Your task to perform on an android device: Go to display settings Image 0: 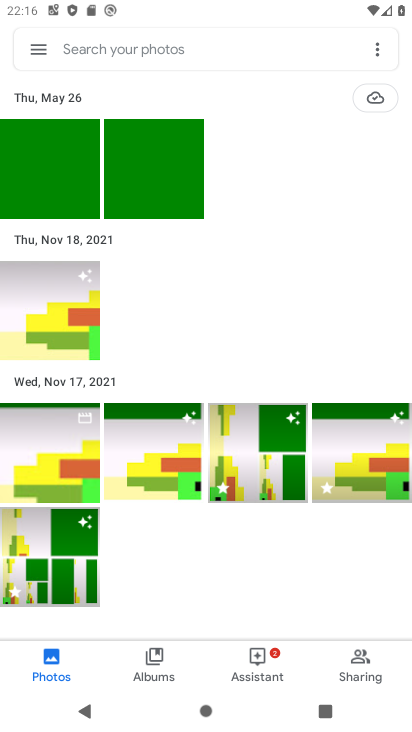
Step 0: press home button
Your task to perform on an android device: Go to display settings Image 1: 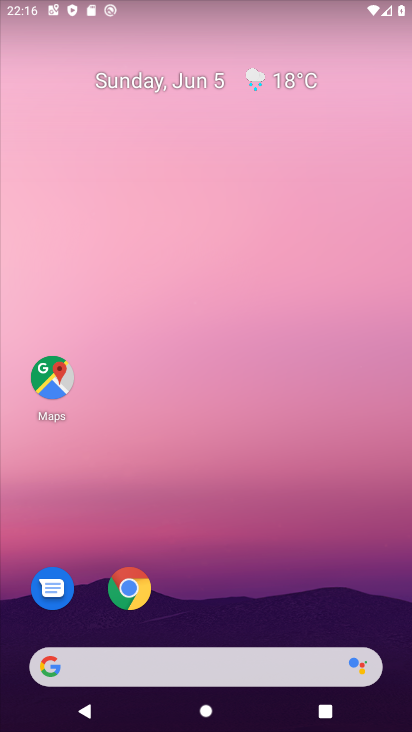
Step 1: drag from (353, 609) to (344, 99)
Your task to perform on an android device: Go to display settings Image 2: 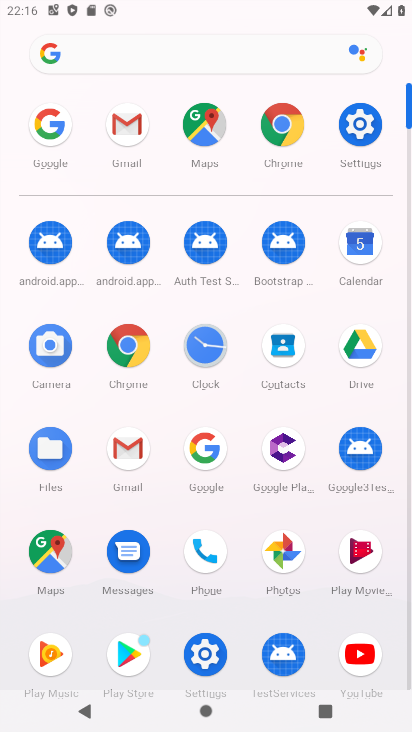
Step 2: click (364, 130)
Your task to perform on an android device: Go to display settings Image 3: 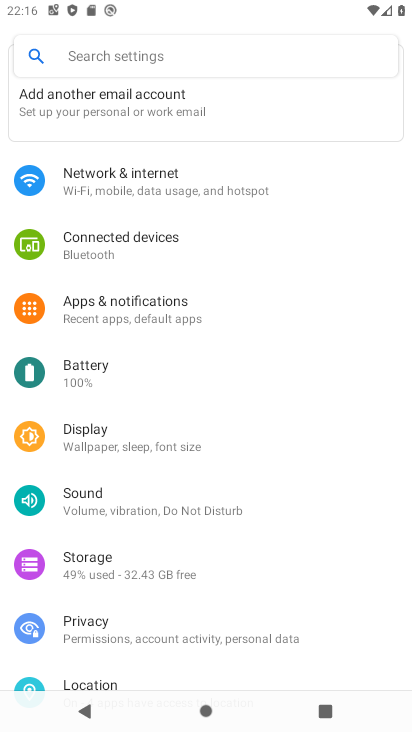
Step 3: click (228, 458)
Your task to perform on an android device: Go to display settings Image 4: 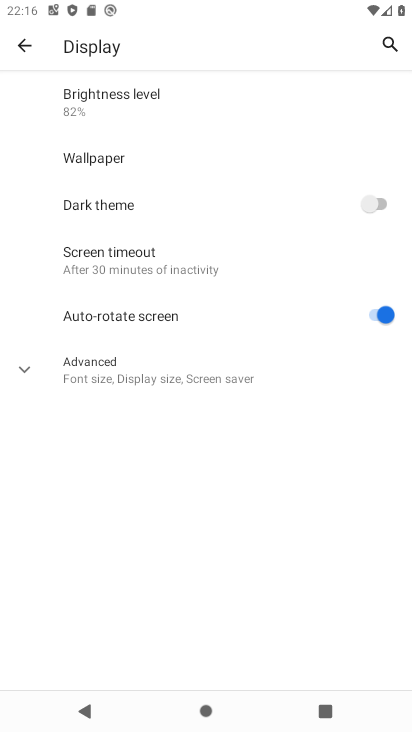
Step 4: click (229, 393)
Your task to perform on an android device: Go to display settings Image 5: 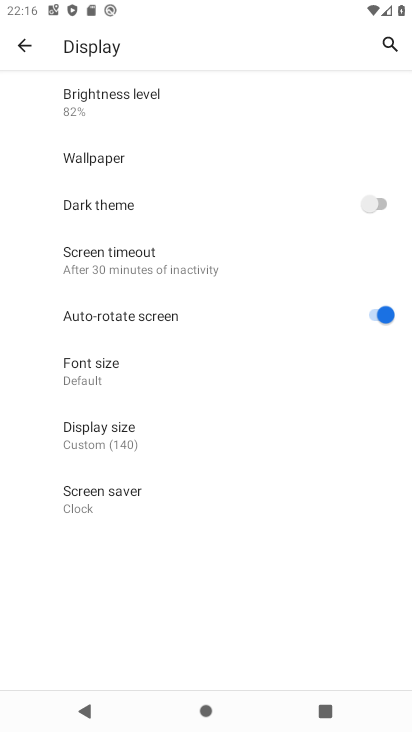
Step 5: task complete